Your task to perform on an android device: open a bookmark in the chrome app Image 0: 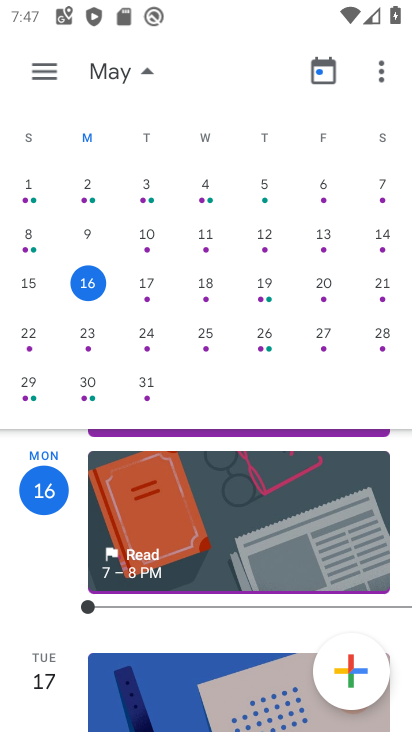
Step 0: press home button
Your task to perform on an android device: open a bookmark in the chrome app Image 1: 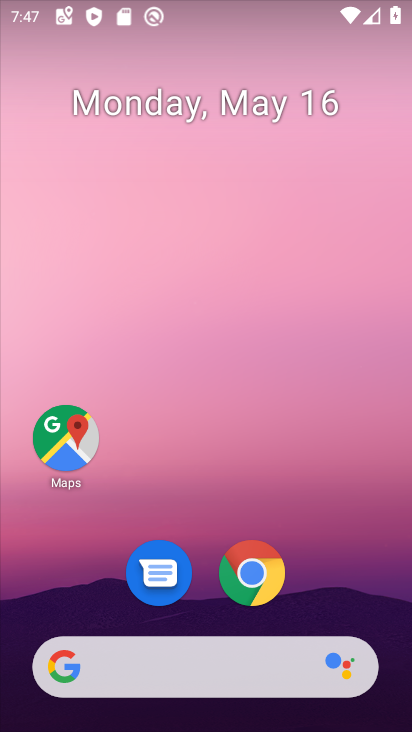
Step 1: click (251, 571)
Your task to perform on an android device: open a bookmark in the chrome app Image 2: 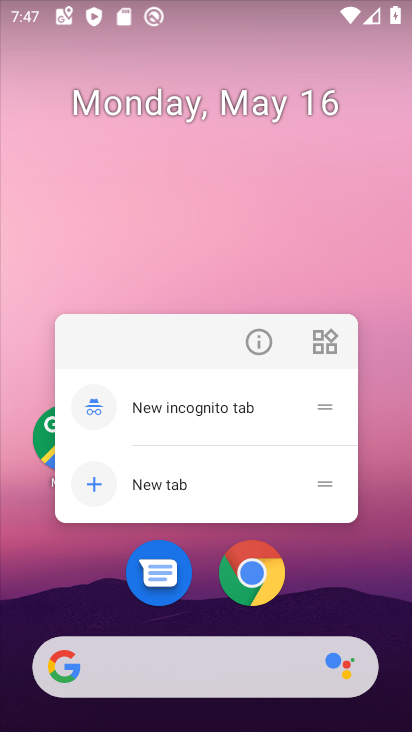
Step 2: click (251, 571)
Your task to perform on an android device: open a bookmark in the chrome app Image 3: 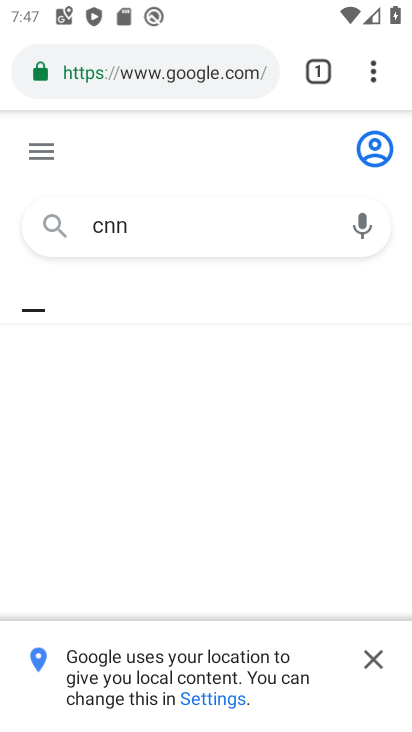
Step 3: drag from (370, 72) to (159, 282)
Your task to perform on an android device: open a bookmark in the chrome app Image 4: 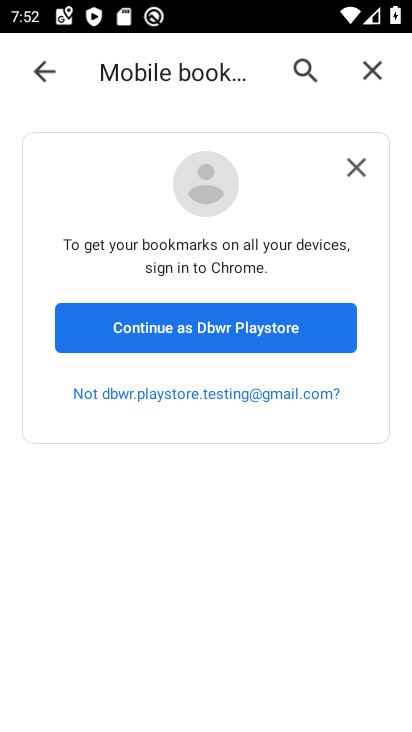
Step 4: click (150, 325)
Your task to perform on an android device: open a bookmark in the chrome app Image 5: 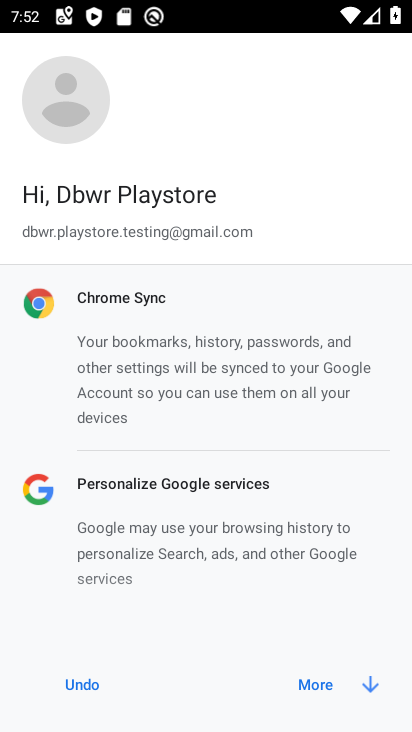
Step 5: click (326, 690)
Your task to perform on an android device: open a bookmark in the chrome app Image 6: 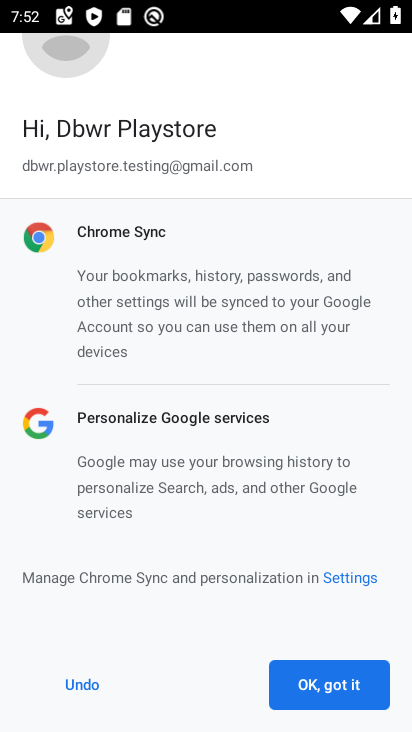
Step 6: click (326, 690)
Your task to perform on an android device: open a bookmark in the chrome app Image 7: 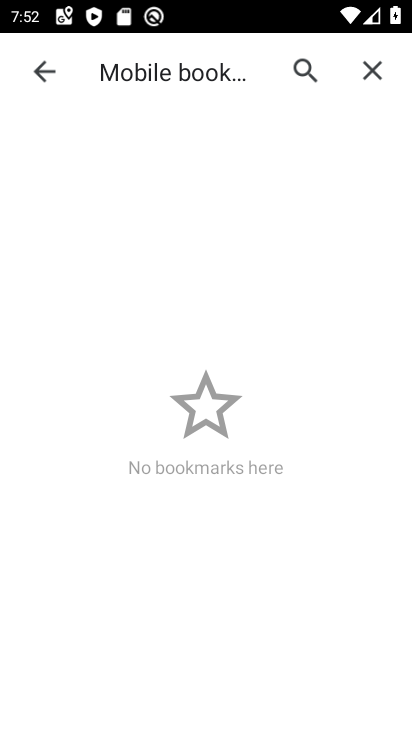
Step 7: task complete